Your task to perform on an android device: check storage Image 0: 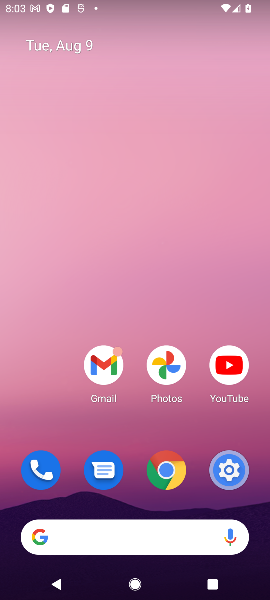
Step 0: drag from (132, 497) to (122, 235)
Your task to perform on an android device: check storage Image 1: 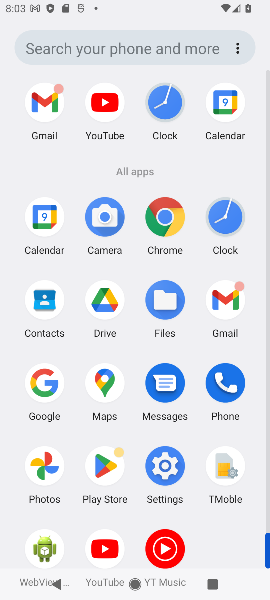
Step 1: click (165, 464)
Your task to perform on an android device: check storage Image 2: 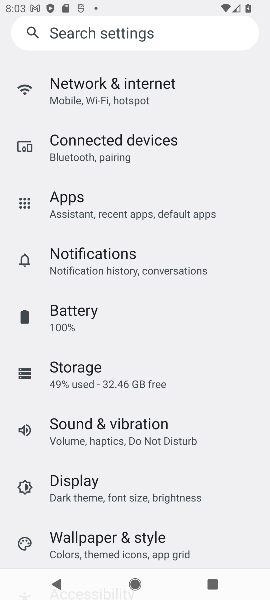
Step 2: click (90, 377)
Your task to perform on an android device: check storage Image 3: 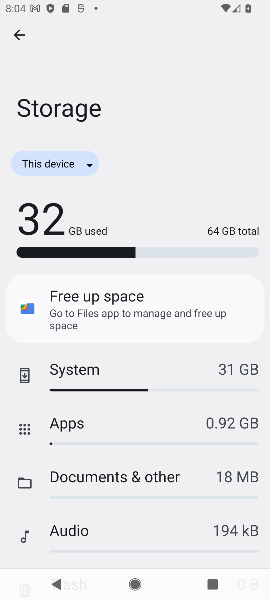
Step 3: task complete